Your task to perform on an android device: delete browsing data in the chrome app Image 0: 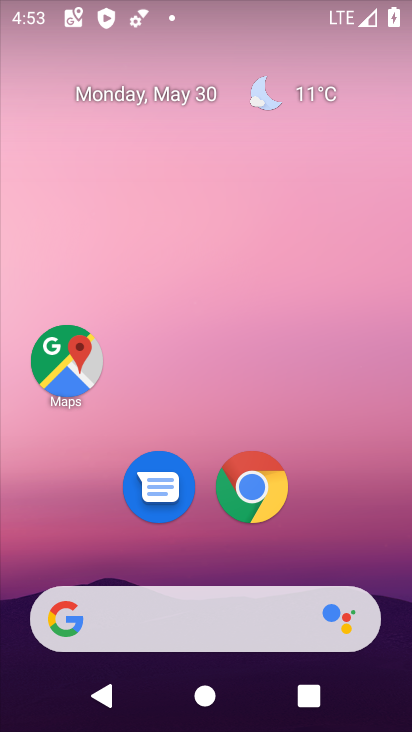
Step 0: click (250, 489)
Your task to perform on an android device: delete browsing data in the chrome app Image 1: 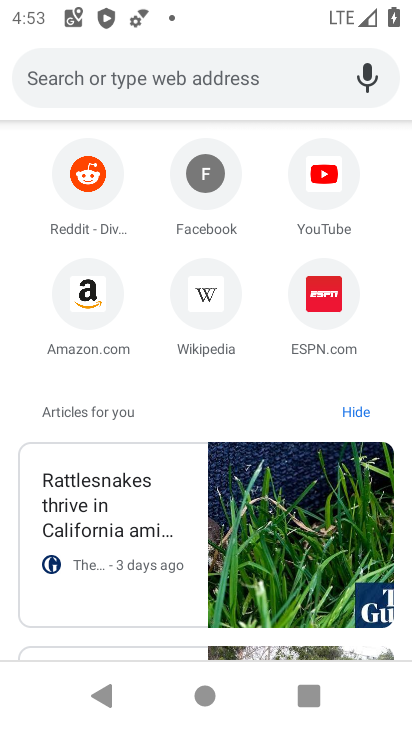
Step 1: drag from (350, 156) to (341, 358)
Your task to perform on an android device: delete browsing data in the chrome app Image 2: 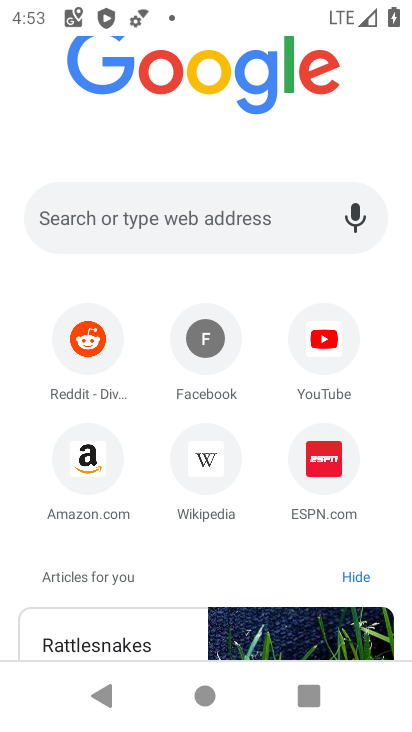
Step 2: drag from (377, 123) to (362, 336)
Your task to perform on an android device: delete browsing data in the chrome app Image 3: 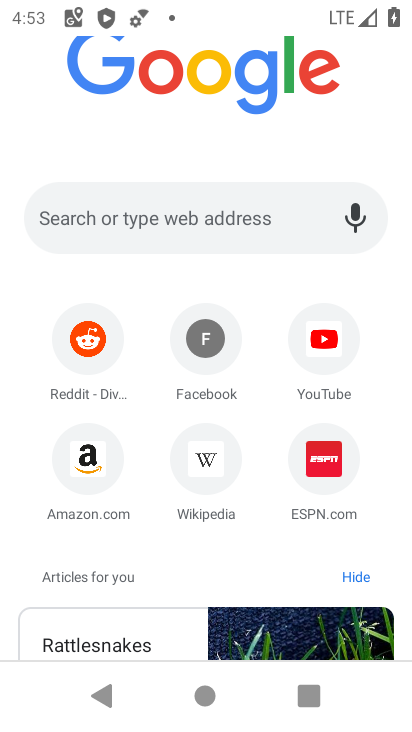
Step 3: drag from (364, 140) to (377, 407)
Your task to perform on an android device: delete browsing data in the chrome app Image 4: 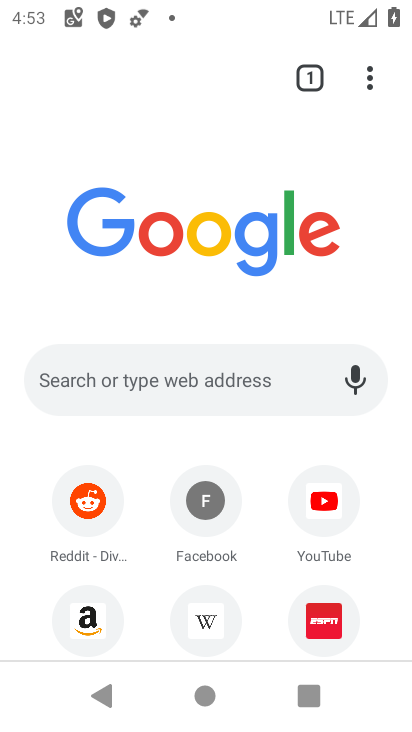
Step 4: click (368, 82)
Your task to perform on an android device: delete browsing data in the chrome app Image 5: 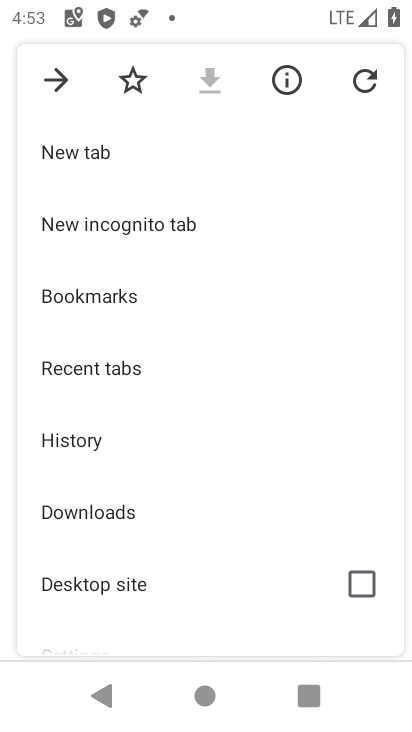
Step 5: click (81, 431)
Your task to perform on an android device: delete browsing data in the chrome app Image 6: 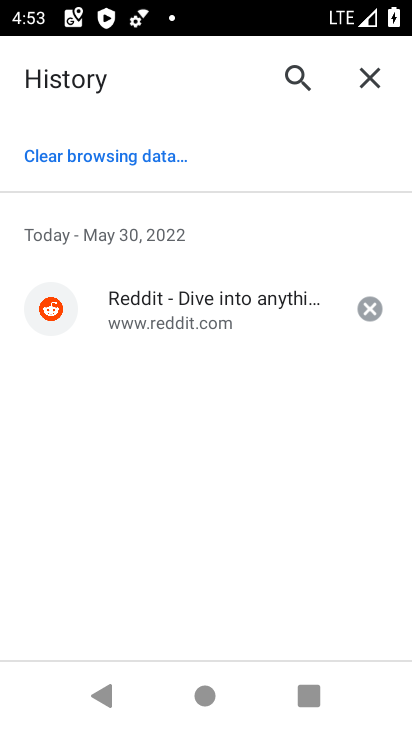
Step 6: click (100, 147)
Your task to perform on an android device: delete browsing data in the chrome app Image 7: 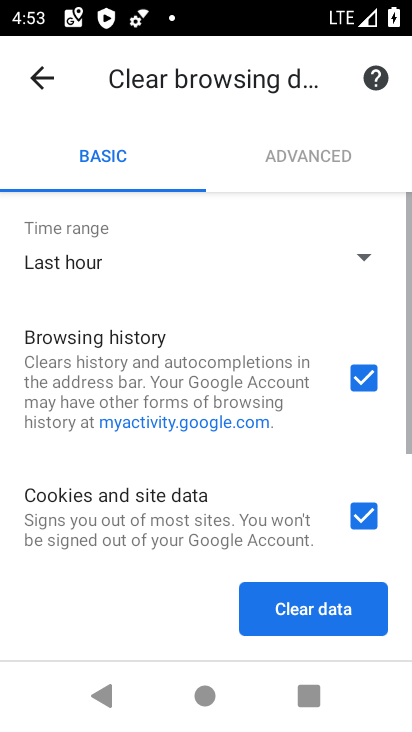
Step 7: click (362, 513)
Your task to perform on an android device: delete browsing data in the chrome app Image 8: 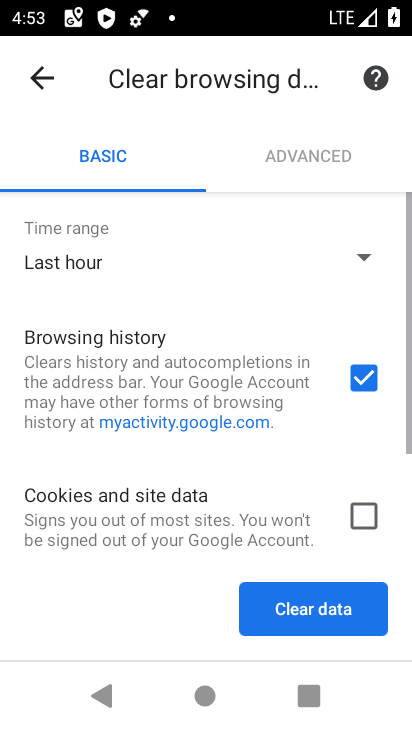
Step 8: drag from (269, 530) to (263, 220)
Your task to perform on an android device: delete browsing data in the chrome app Image 9: 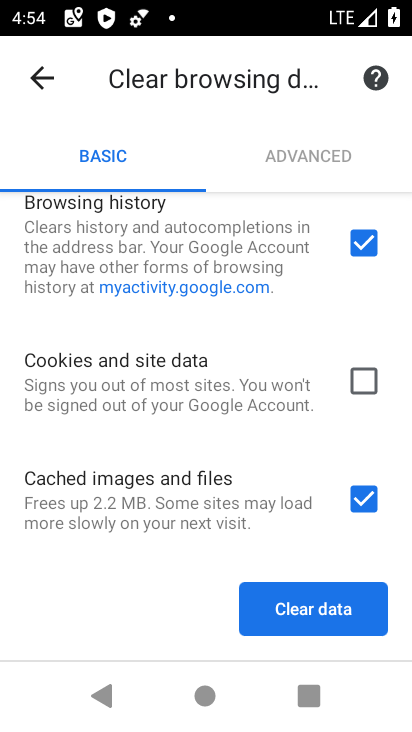
Step 9: click (361, 493)
Your task to perform on an android device: delete browsing data in the chrome app Image 10: 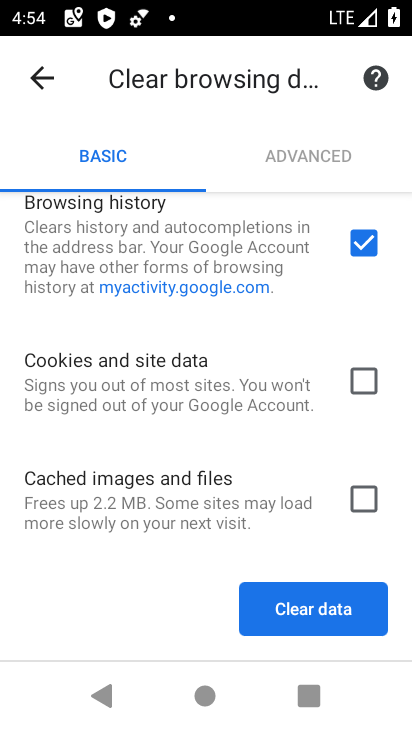
Step 10: click (314, 610)
Your task to perform on an android device: delete browsing data in the chrome app Image 11: 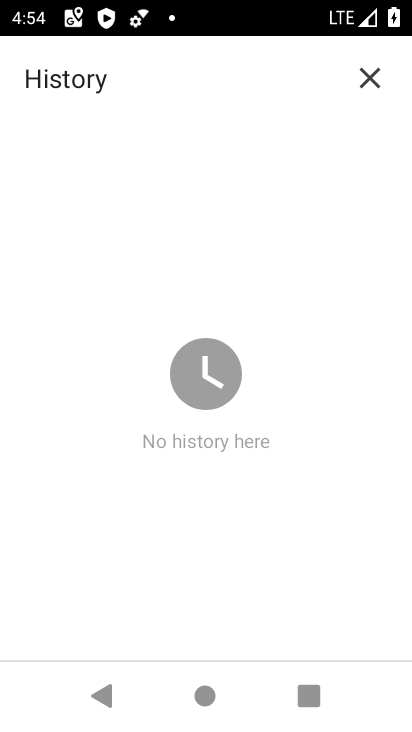
Step 11: task complete